Your task to perform on an android device: change the upload size in google photos Image 0: 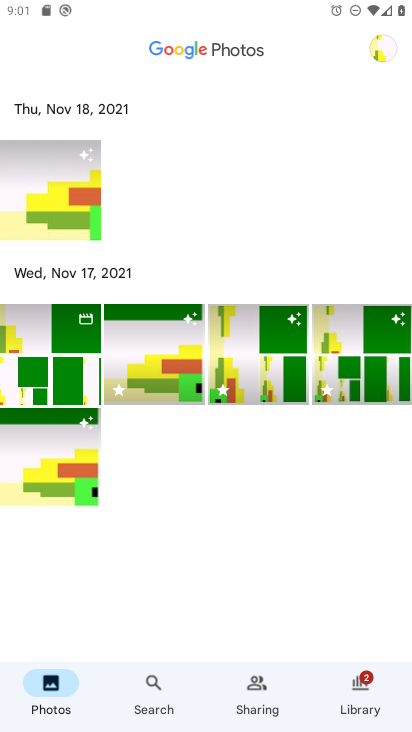
Step 0: press home button
Your task to perform on an android device: change the upload size in google photos Image 1: 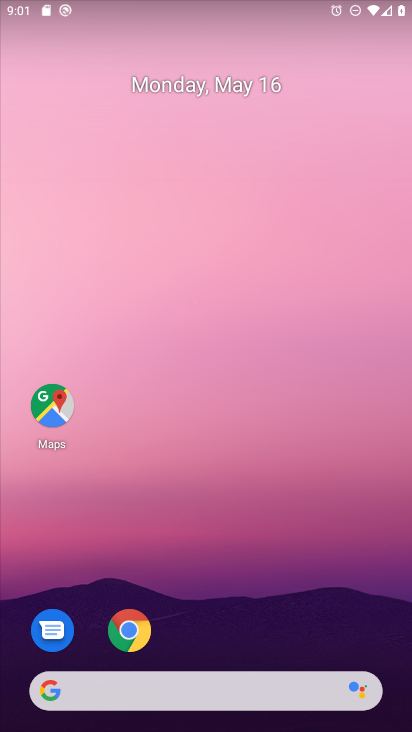
Step 1: drag from (213, 594) to (141, 168)
Your task to perform on an android device: change the upload size in google photos Image 2: 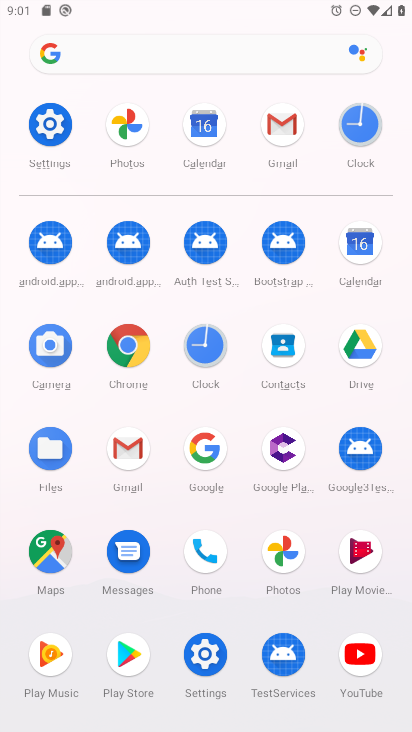
Step 2: click (284, 538)
Your task to perform on an android device: change the upload size in google photos Image 3: 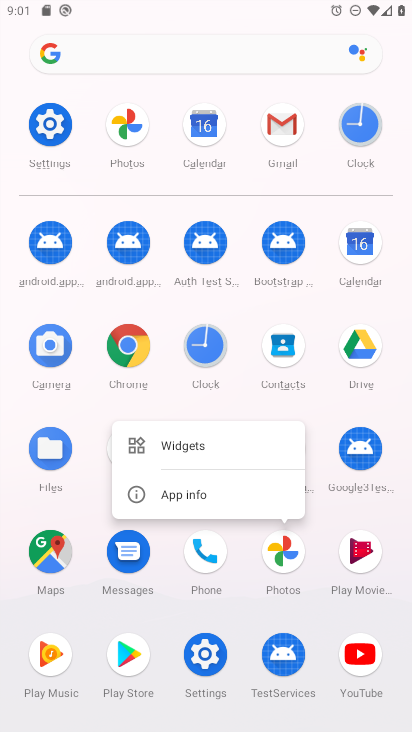
Step 3: click (261, 529)
Your task to perform on an android device: change the upload size in google photos Image 4: 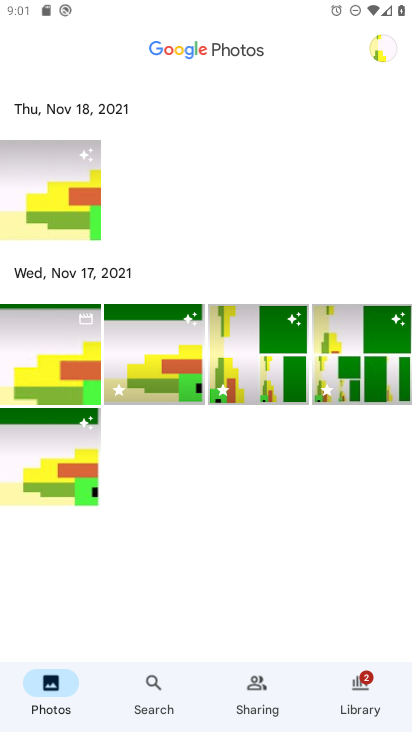
Step 4: click (260, 528)
Your task to perform on an android device: change the upload size in google photos Image 5: 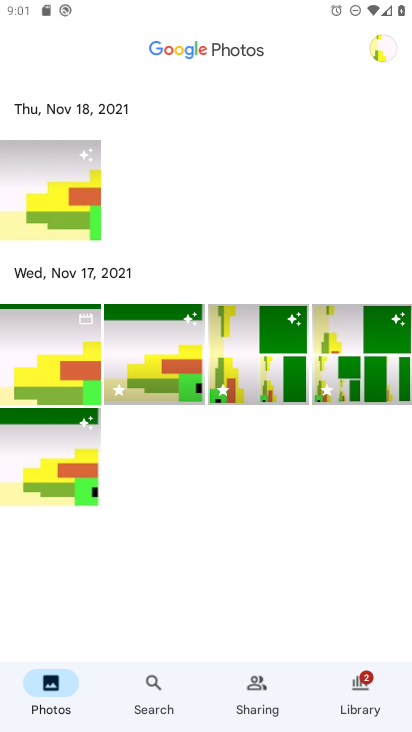
Step 5: click (338, 685)
Your task to perform on an android device: change the upload size in google photos Image 6: 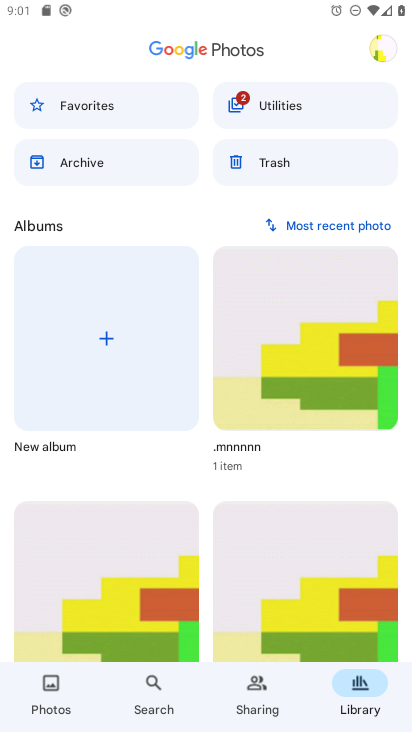
Step 6: click (387, 26)
Your task to perform on an android device: change the upload size in google photos Image 7: 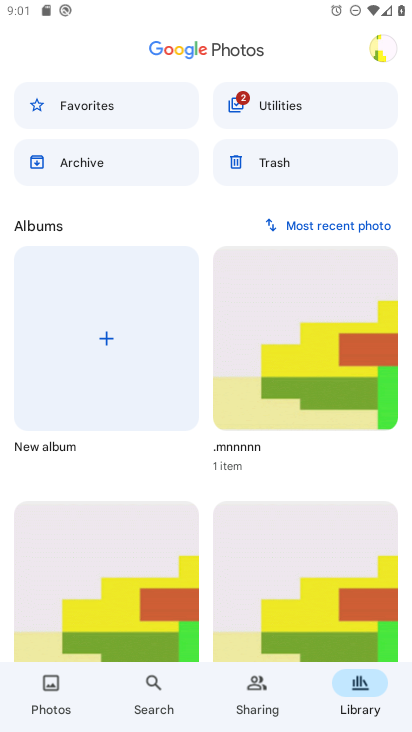
Step 7: click (380, 56)
Your task to perform on an android device: change the upload size in google photos Image 8: 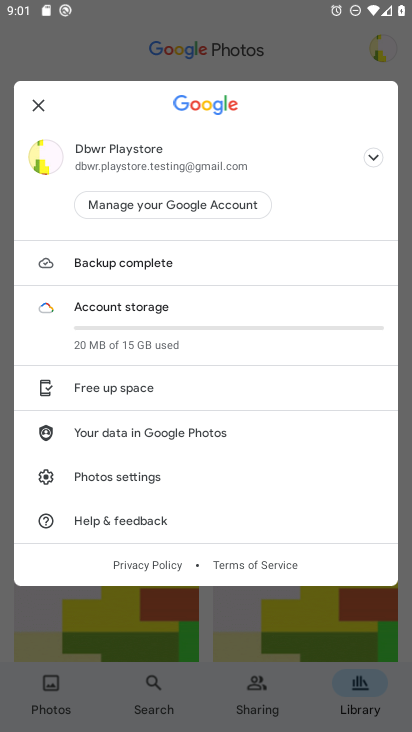
Step 8: click (114, 485)
Your task to perform on an android device: change the upload size in google photos Image 9: 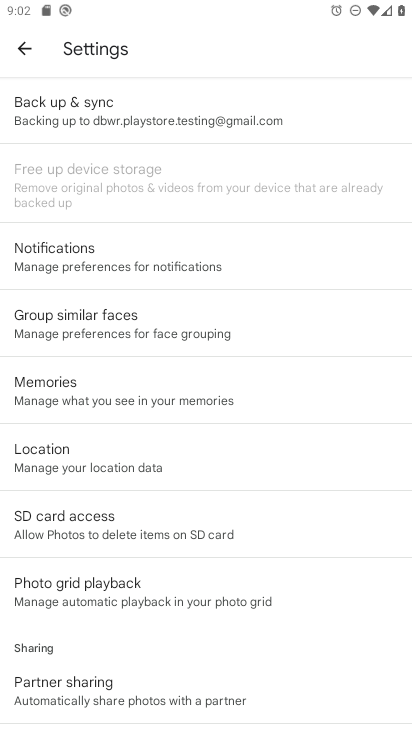
Step 9: task complete